Your task to perform on an android device: Go to network settings Image 0: 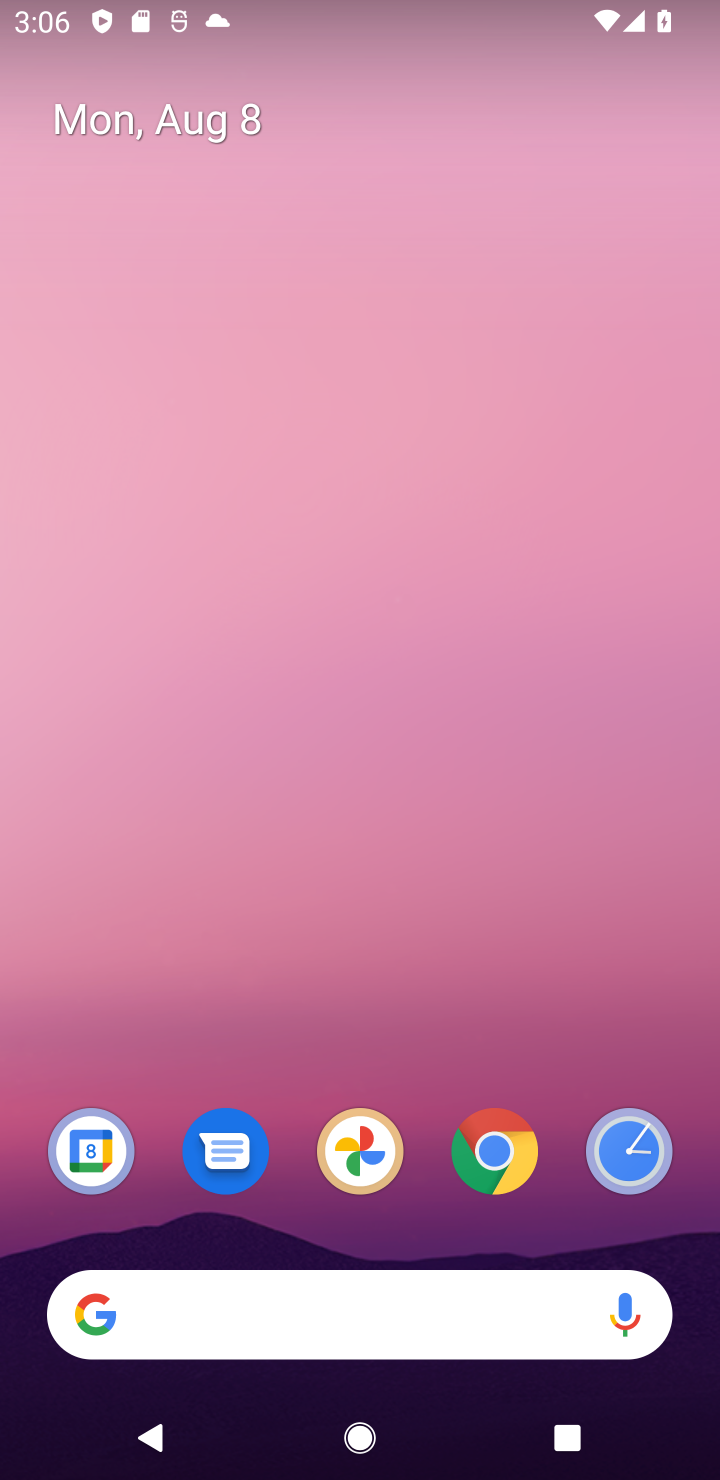
Step 0: drag from (420, 1007) to (357, 242)
Your task to perform on an android device: Go to network settings Image 1: 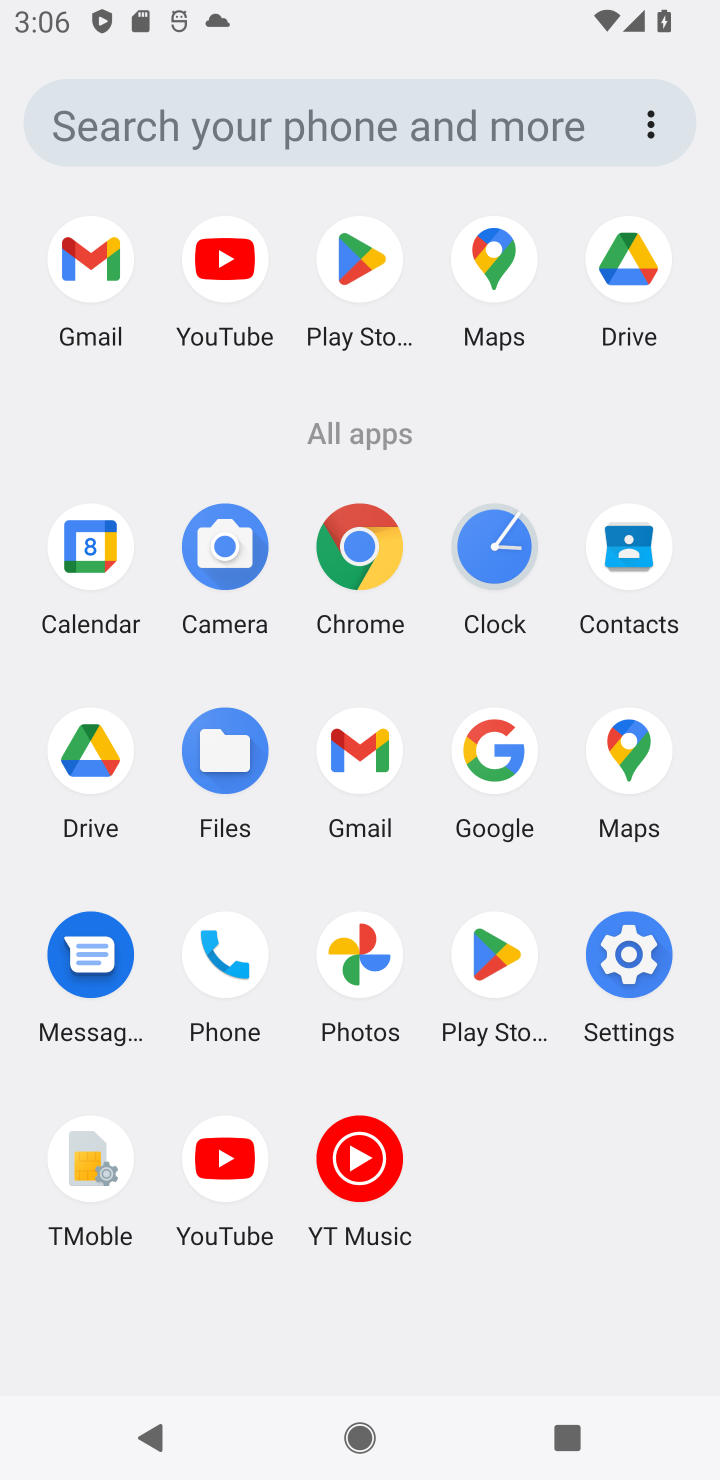
Step 1: click (597, 968)
Your task to perform on an android device: Go to network settings Image 2: 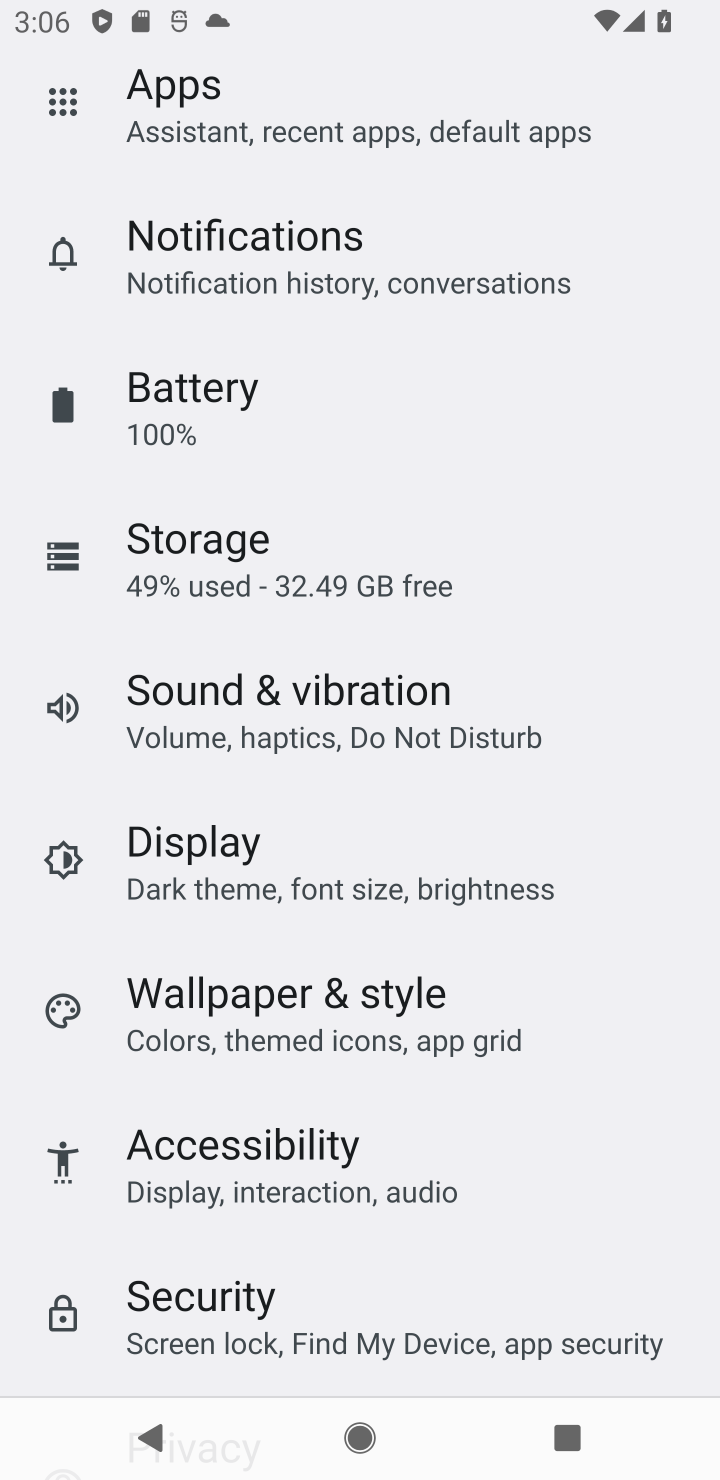
Step 2: drag from (429, 370) to (371, 1017)
Your task to perform on an android device: Go to network settings Image 3: 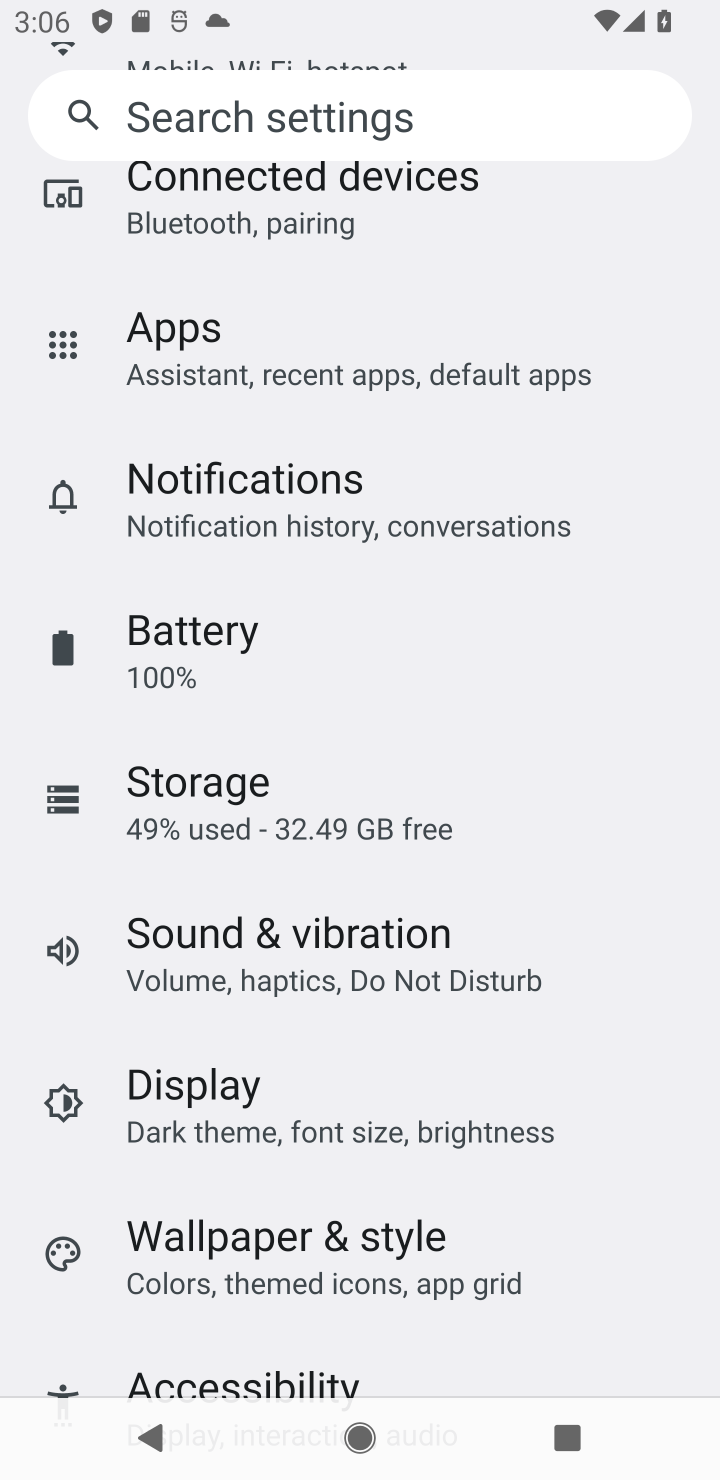
Step 3: drag from (341, 306) to (401, 884)
Your task to perform on an android device: Go to network settings Image 4: 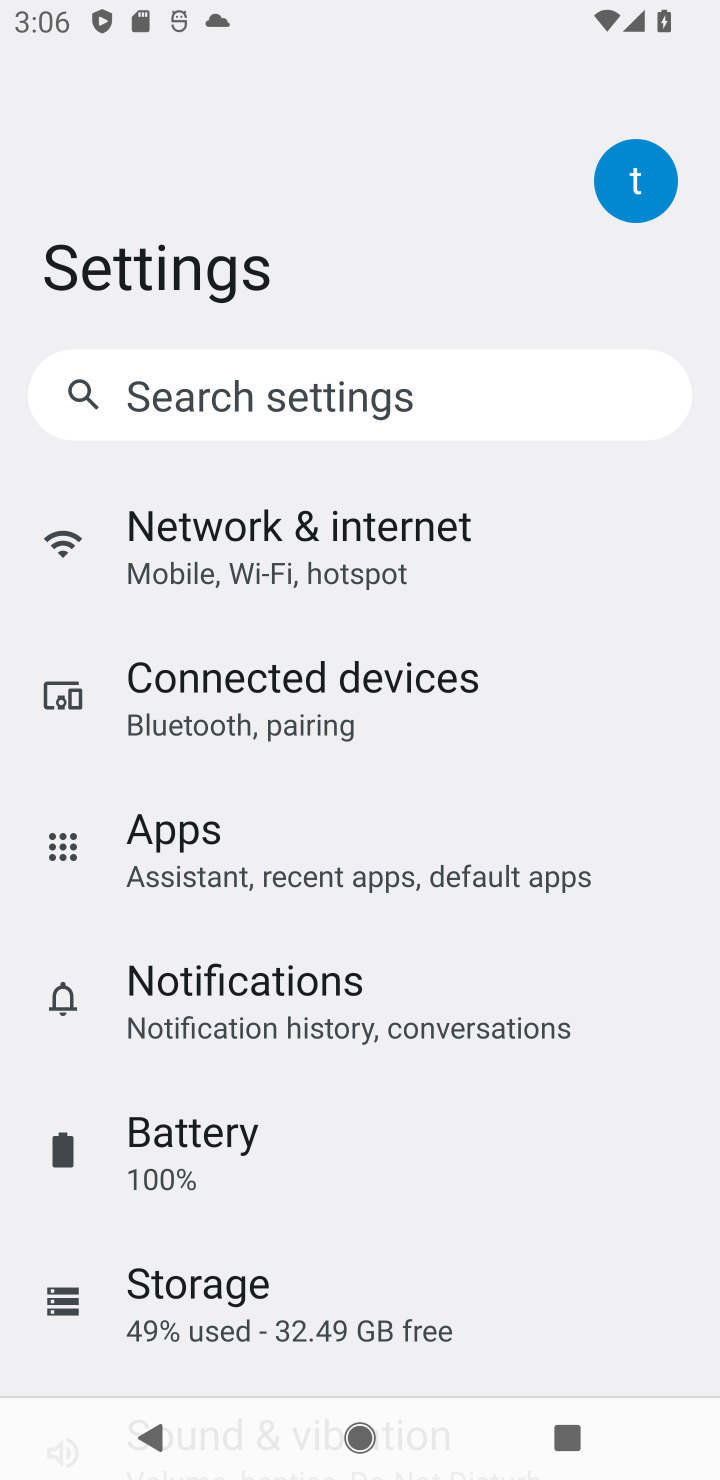
Step 4: click (360, 571)
Your task to perform on an android device: Go to network settings Image 5: 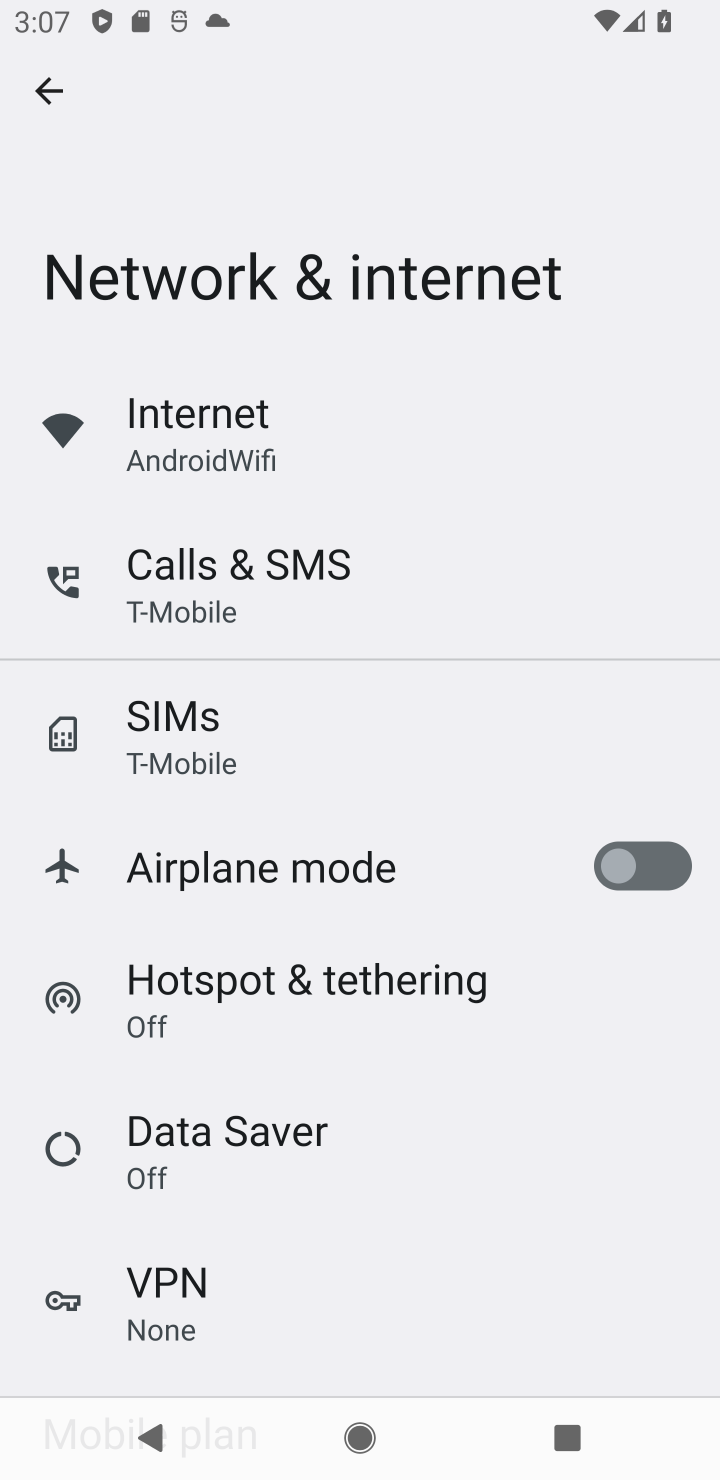
Step 5: click (289, 463)
Your task to perform on an android device: Go to network settings Image 6: 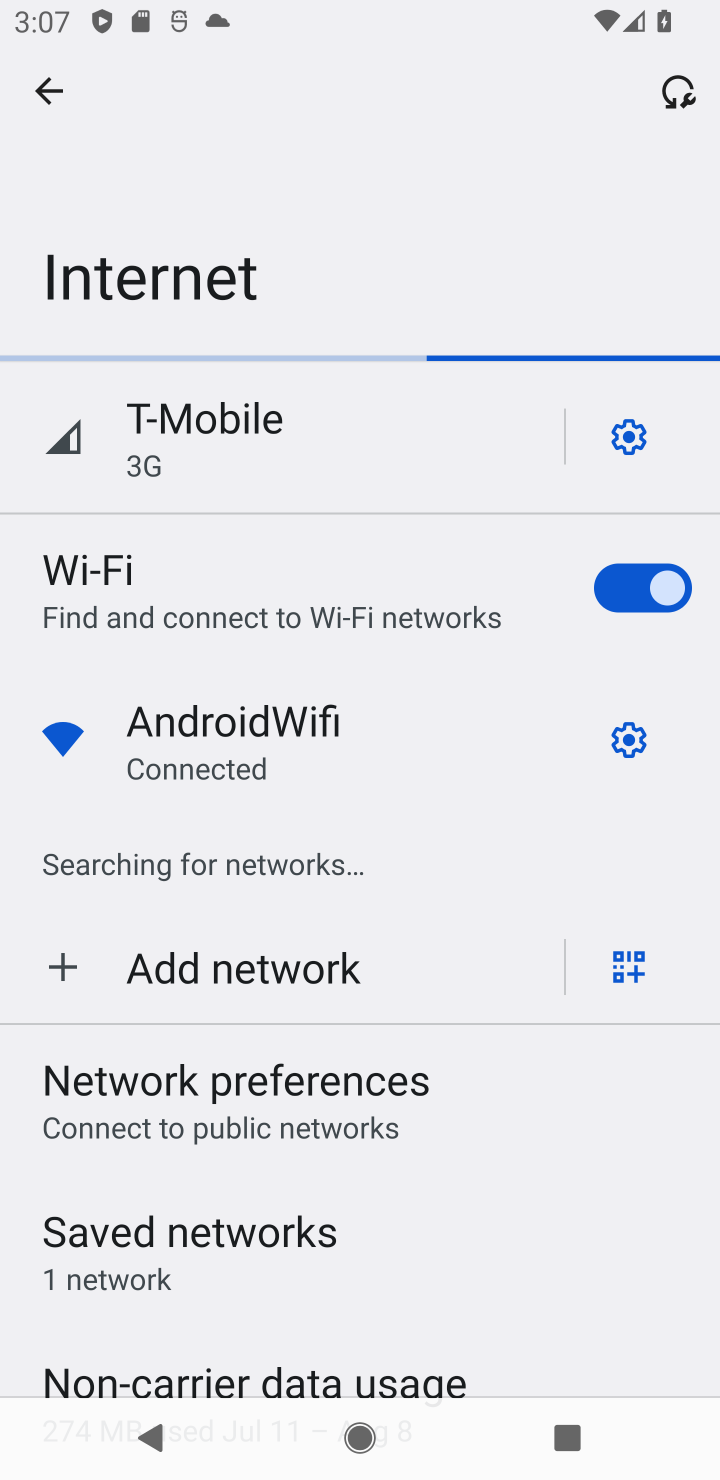
Step 6: task complete